Your task to perform on an android device: Open privacy settings Image 0: 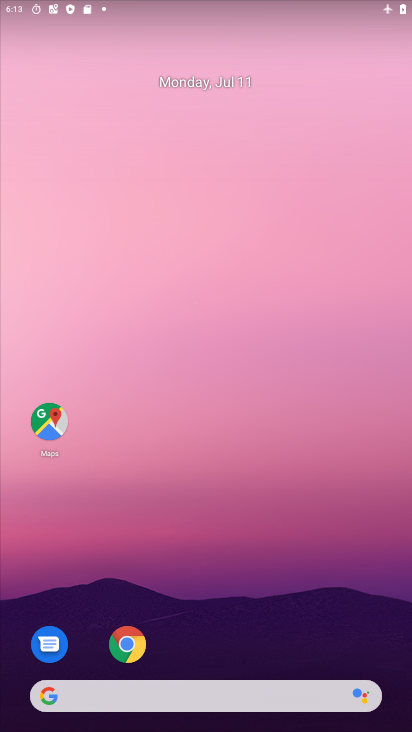
Step 0: drag from (324, 633) to (329, 0)
Your task to perform on an android device: Open privacy settings Image 1: 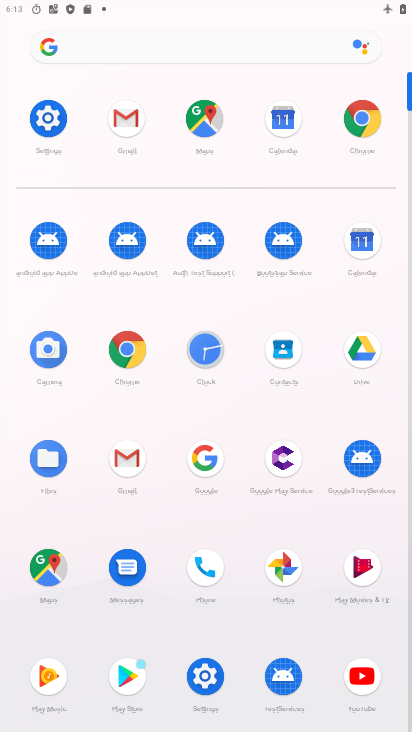
Step 1: click (41, 120)
Your task to perform on an android device: Open privacy settings Image 2: 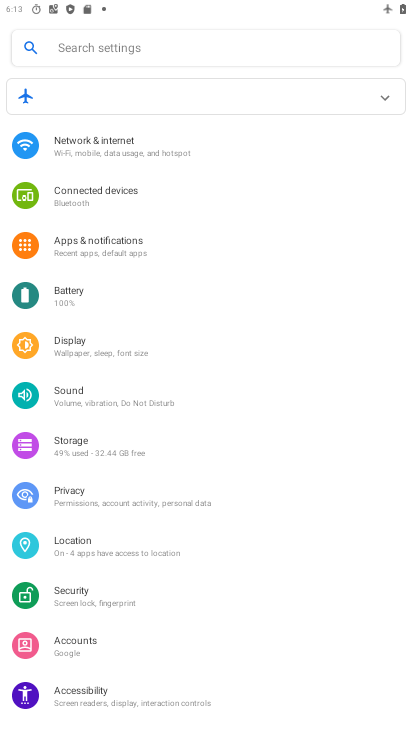
Step 2: click (99, 492)
Your task to perform on an android device: Open privacy settings Image 3: 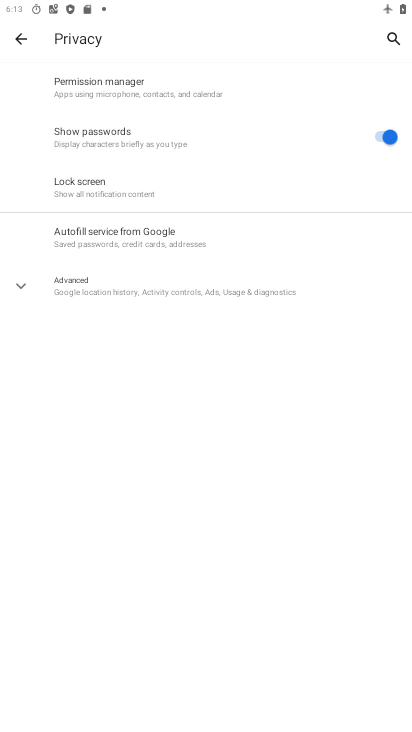
Step 3: task complete